Your task to perform on an android device: Go to Maps Image 0: 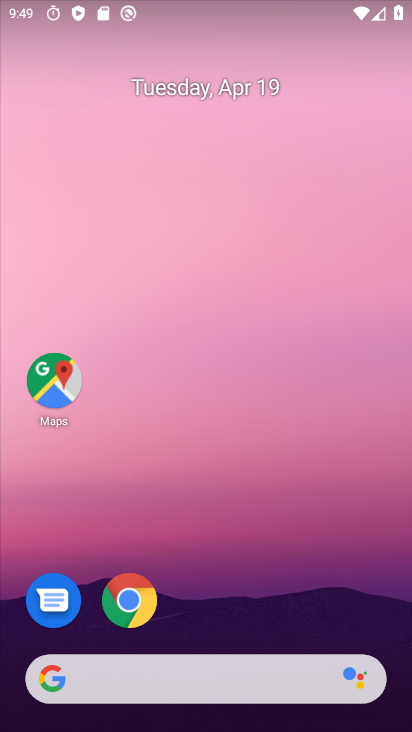
Step 0: drag from (354, 550) to (326, 191)
Your task to perform on an android device: Go to Maps Image 1: 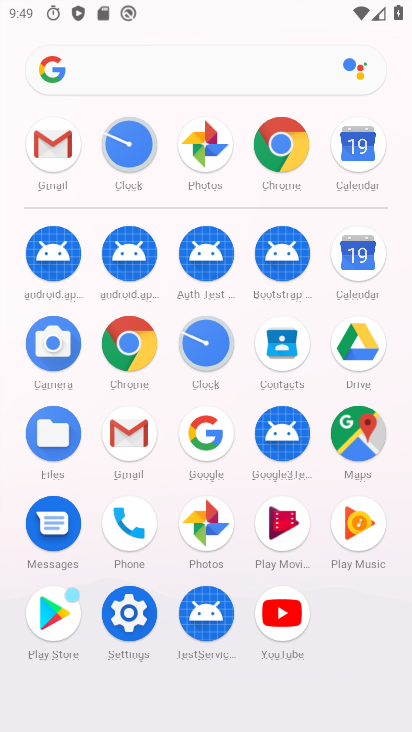
Step 1: click (361, 440)
Your task to perform on an android device: Go to Maps Image 2: 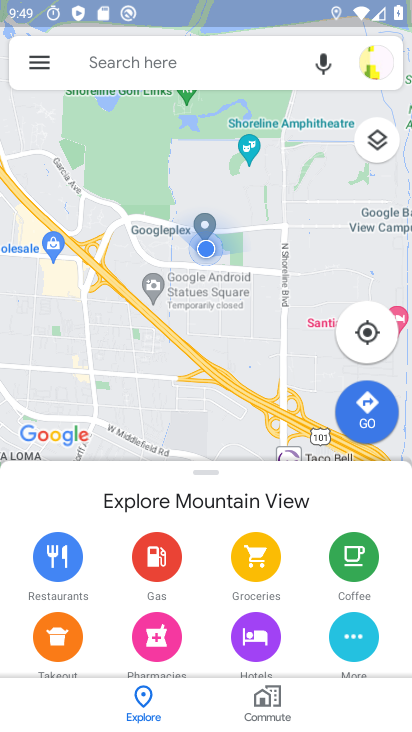
Step 2: task complete